Your task to perform on an android device: What's the weather going to be tomorrow? Image 0: 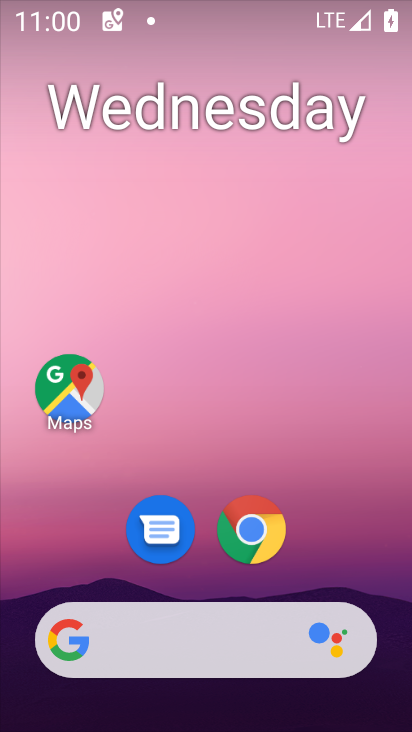
Step 0: click (147, 638)
Your task to perform on an android device: What's the weather going to be tomorrow? Image 1: 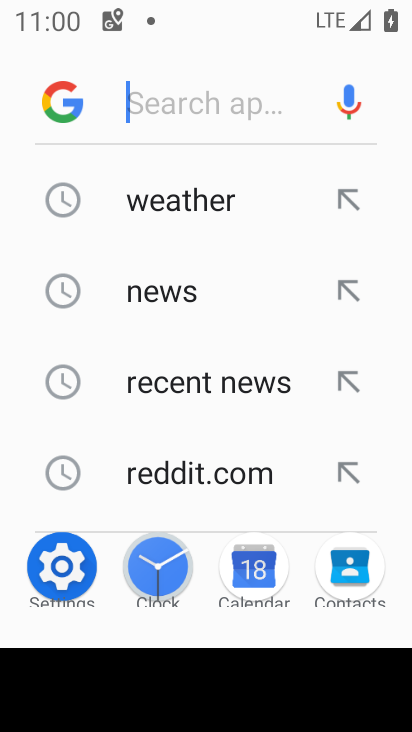
Step 1: click (194, 191)
Your task to perform on an android device: What's the weather going to be tomorrow? Image 2: 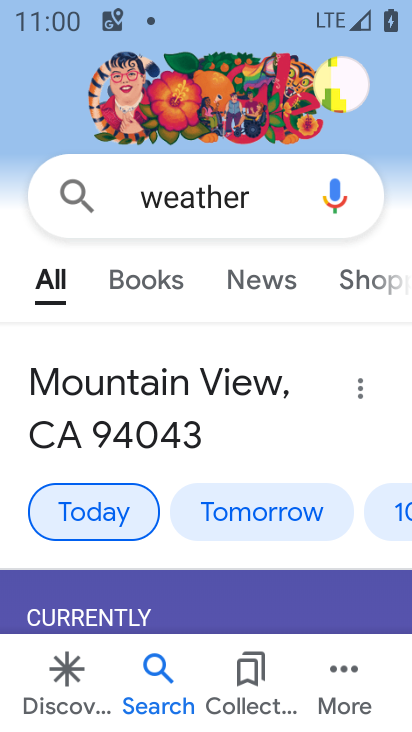
Step 2: click (264, 517)
Your task to perform on an android device: What's the weather going to be tomorrow? Image 3: 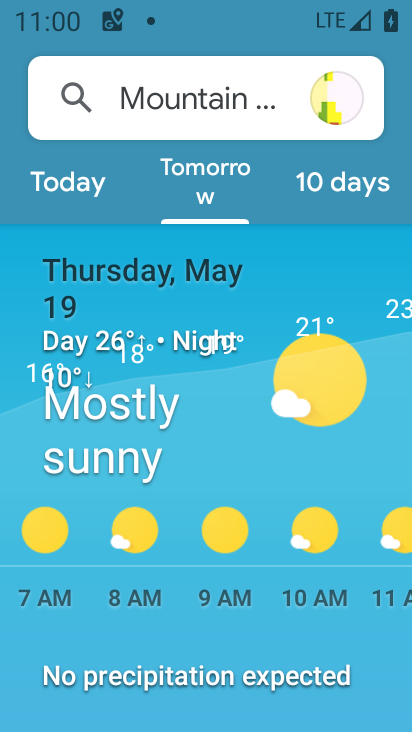
Step 3: task complete